Your task to perform on an android device: Open Amazon Image 0: 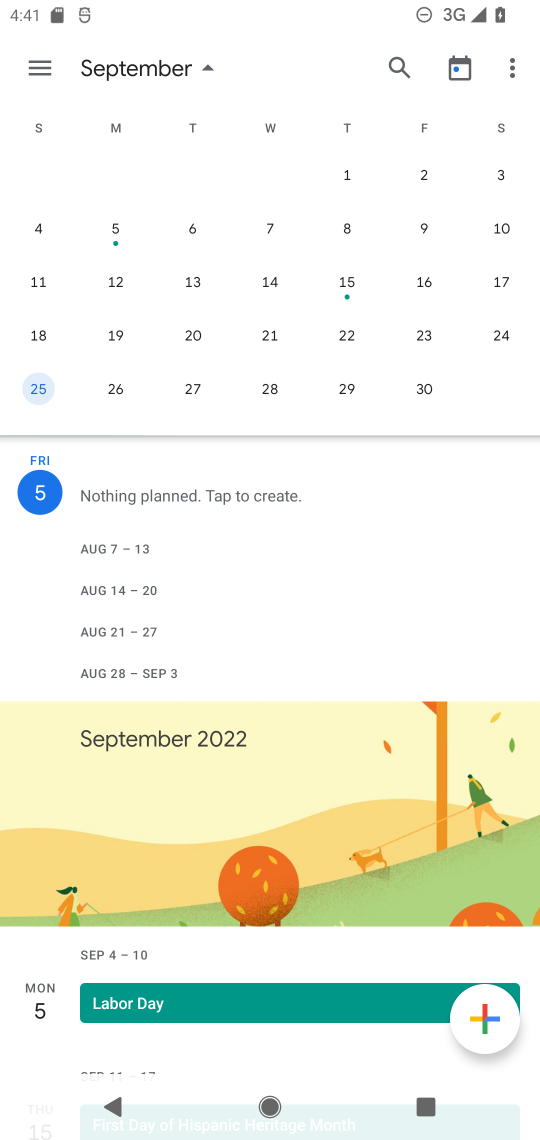
Step 0: press home button
Your task to perform on an android device: Open Amazon Image 1: 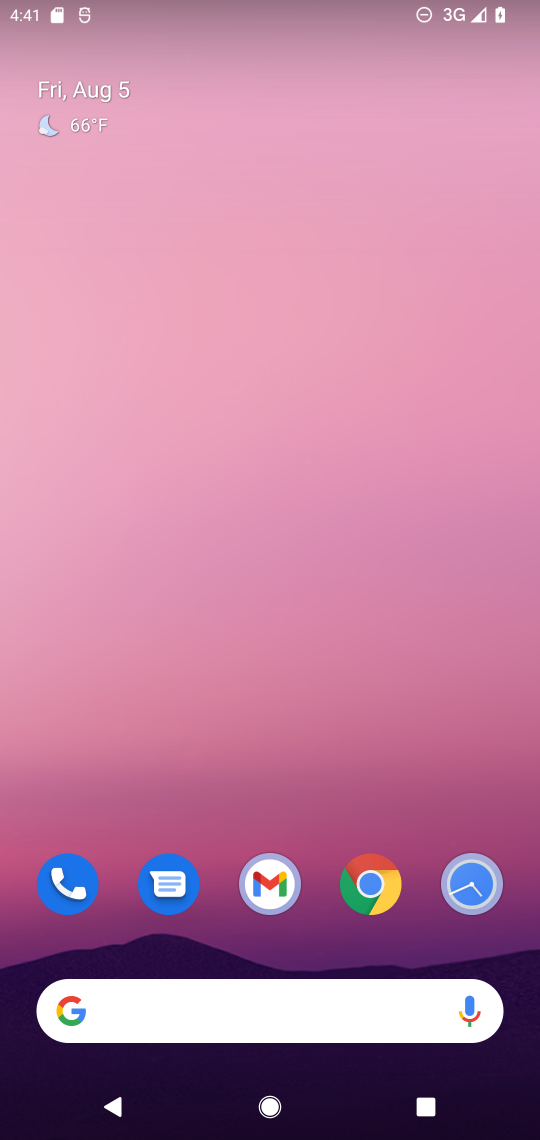
Step 1: drag from (459, 935) to (220, 146)
Your task to perform on an android device: Open Amazon Image 2: 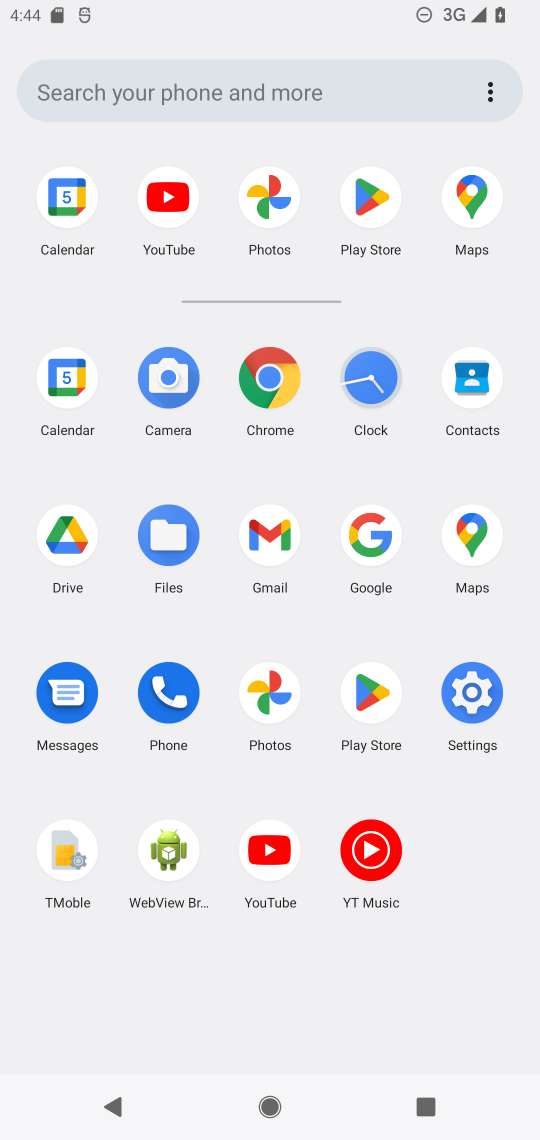
Step 2: click (374, 542)
Your task to perform on an android device: Open Amazon Image 3: 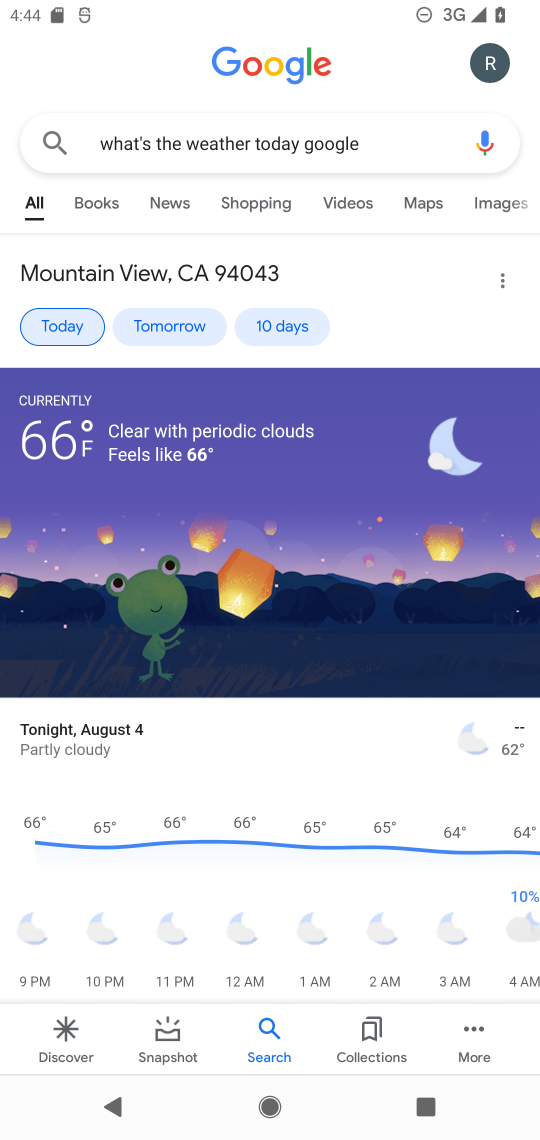
Step 3: press back button
Your task to perform on an android device: Open Amazon Image 4: 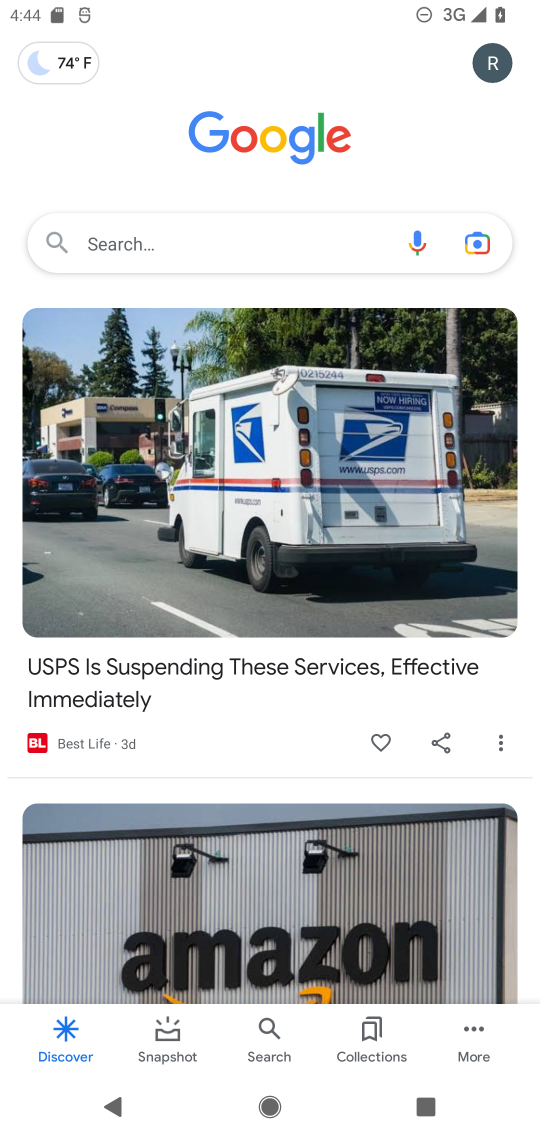
Step 4: click (111, 252)
Your task to perform on an android device: Open Amazon Image 5: 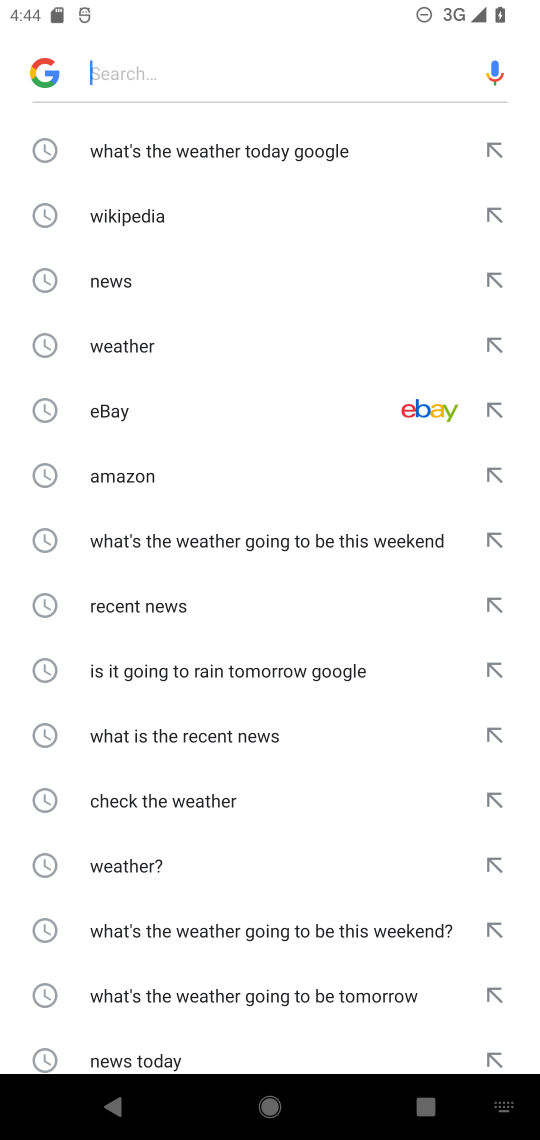
Step 5: type "Amazon"
Your task to perform on an android device: Open Amazon Image 6: 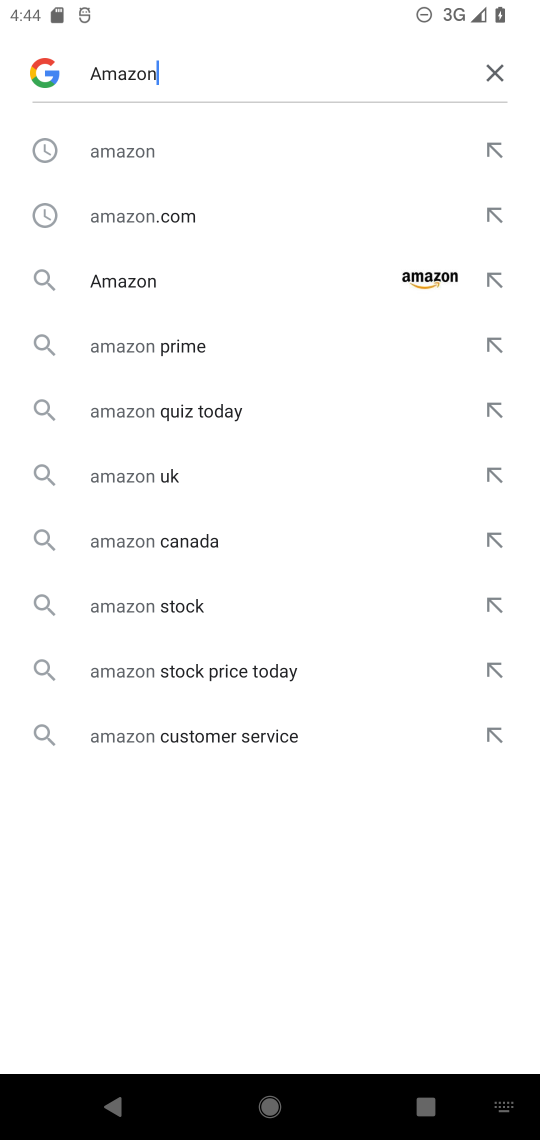
Step 6: click (152, 296)
Your task to perform on an android device: Open Amazon Image 7: 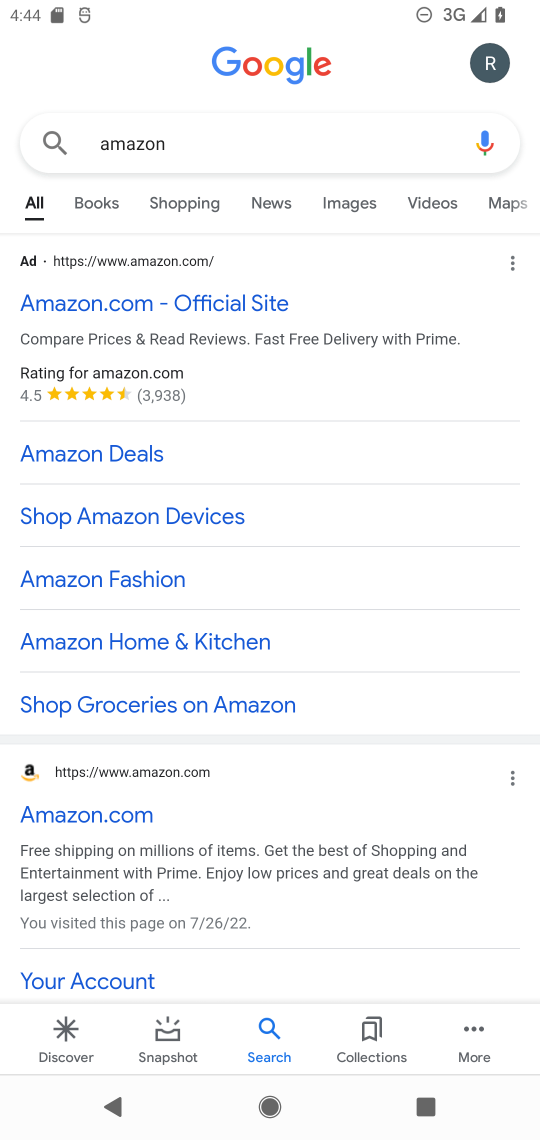
Step 7: task complete